Your task to perform on an android device: open app "Yahoo Mail" (install if not already installed) and go to login screen Image 0: 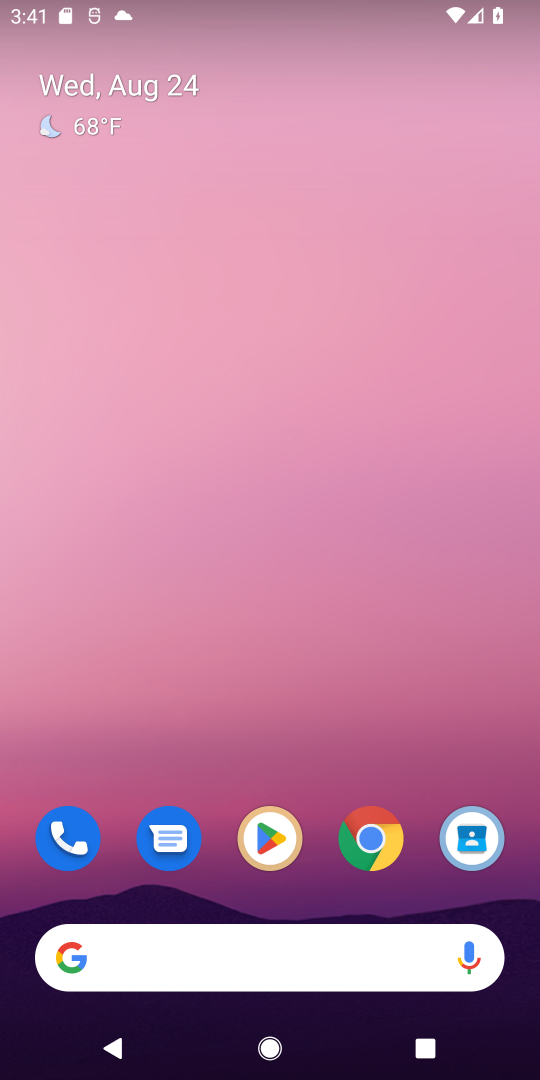
Step 0: click (262, 845)
Your task to perform on an android device: open app "Yahoo Mail" (install if not already installed) and go to login screen Image 1: 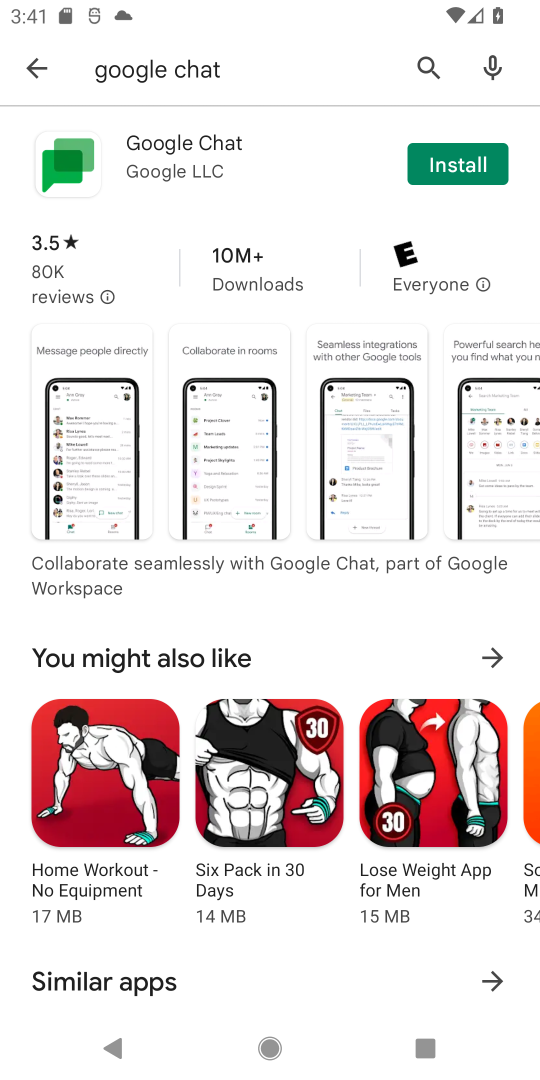
Step 1: click (73, 68)
Your task to perform on an android device: open app "Yahoo Mail" (install if not already installed) and go to login screen Image 2: 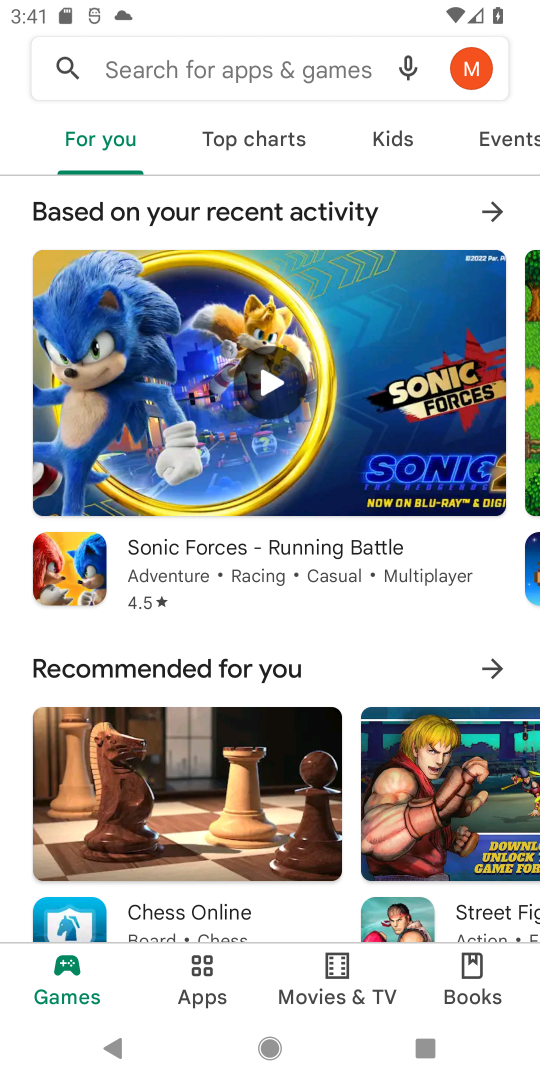
Step 2: click (53, 67)
Your task to perform on an android device: open app "Yahoo Mail" (install if not already installed) and go to login screen Image 3: 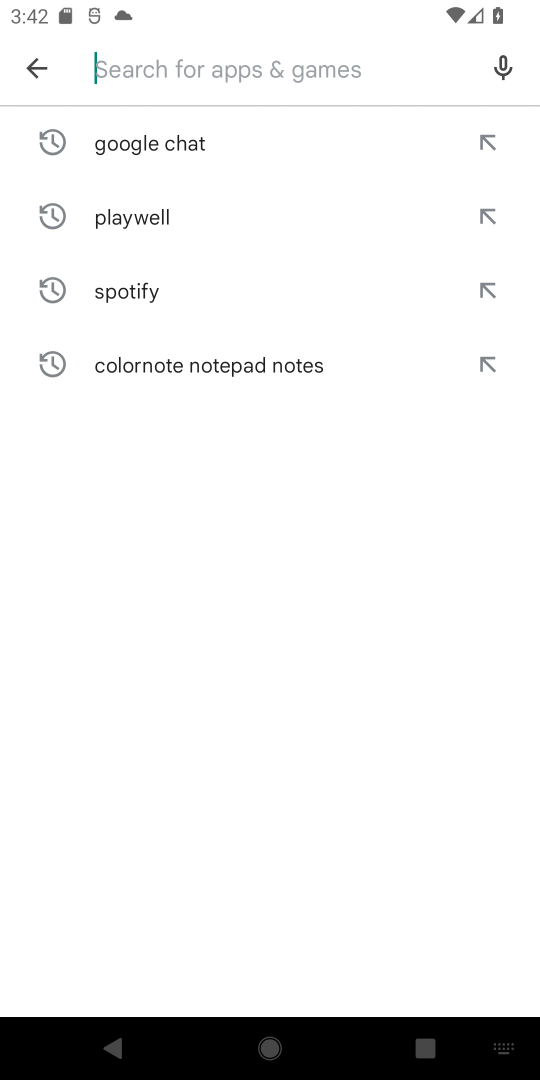
Step 3: type "Yahoo Mail"
Your task to perform on an android device: open app "Yahoo Mail" (install if not already installed) and go to login screen Image 4: 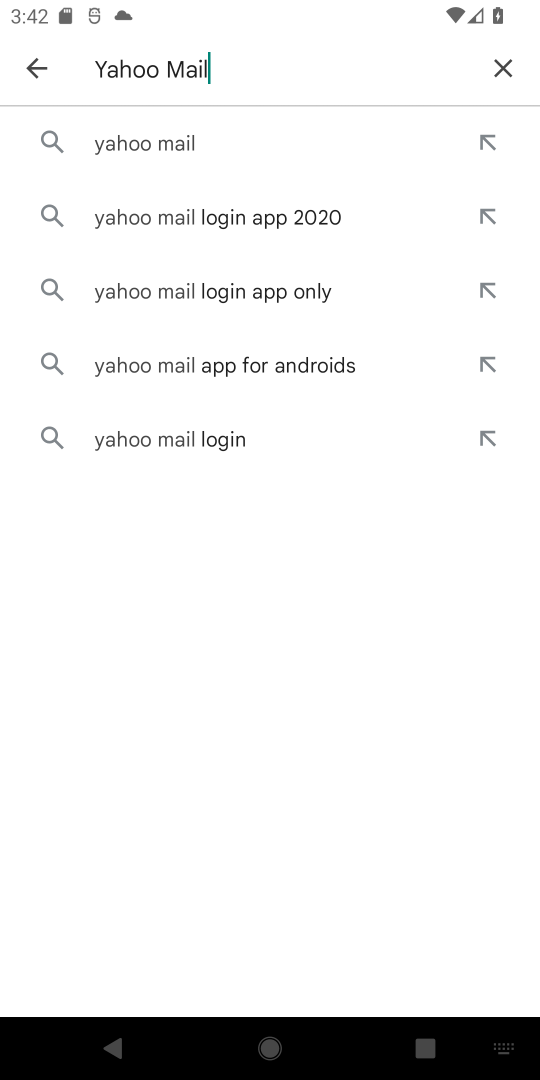
Step 4: click (189, 122)
Your task to perform on an android device: open app "Yahoo Mail" (install if not already installed) and go to login screen Image 5: 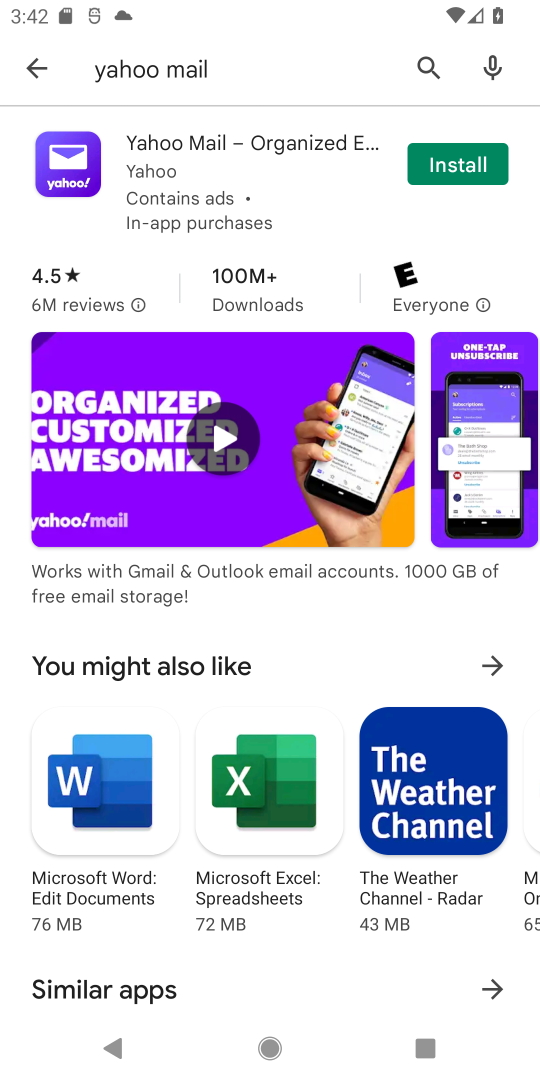
Step 5: click (470, 159)
Your task to perform on an android device: open app "Yahoo Mail" (install if not already installed) and go to login screen Image 6: 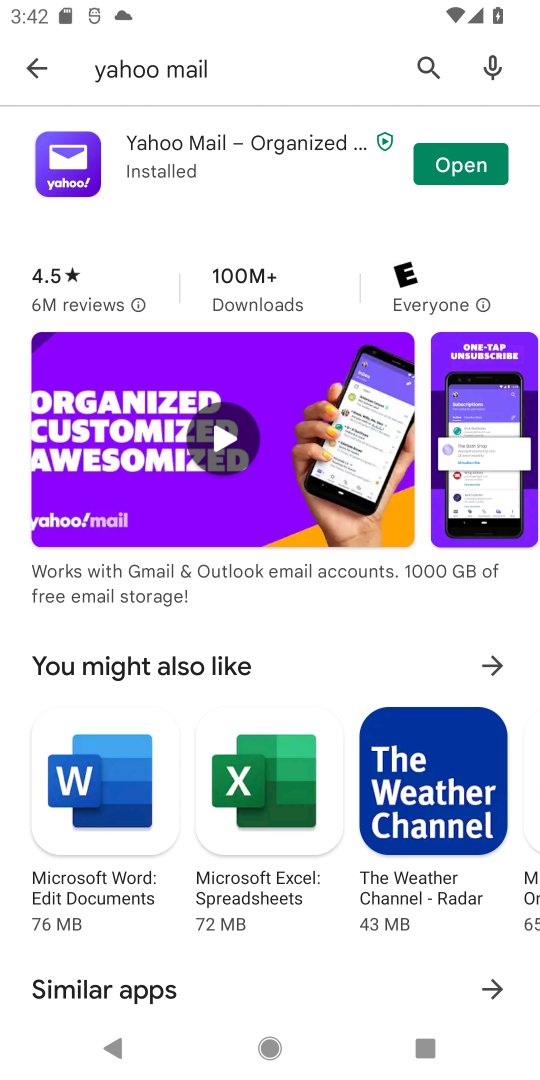
Step 6: click (470, 159)
Your task to perform on an android device: open app "Yahoo Mail" (install if not already installed) and go to login screen Image 7: 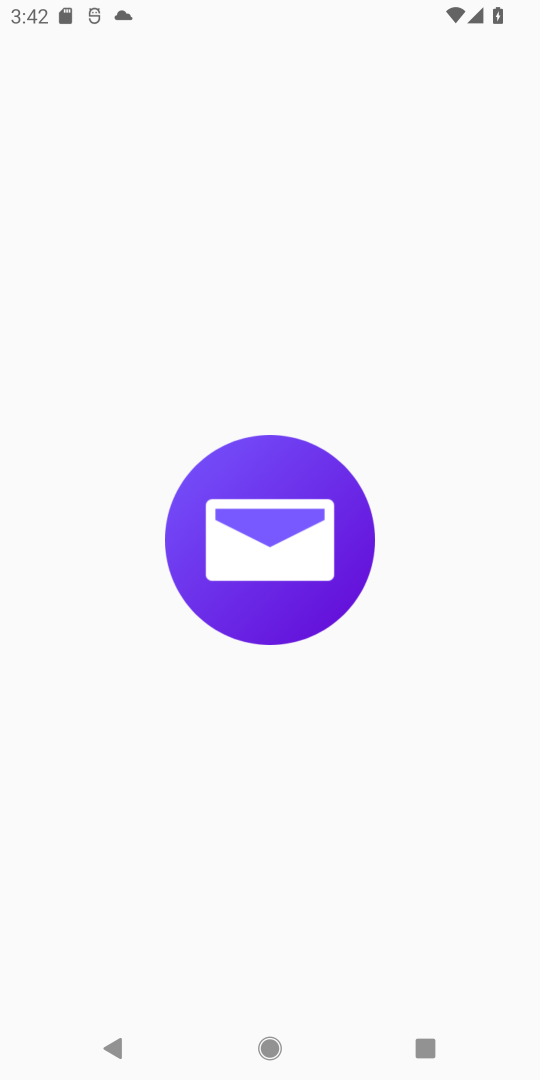
Step 7: click (470, 159)
Your task to perform on an android device: open app "Yahoo Mail" (install if not already installed) and go to login screen Image 8: 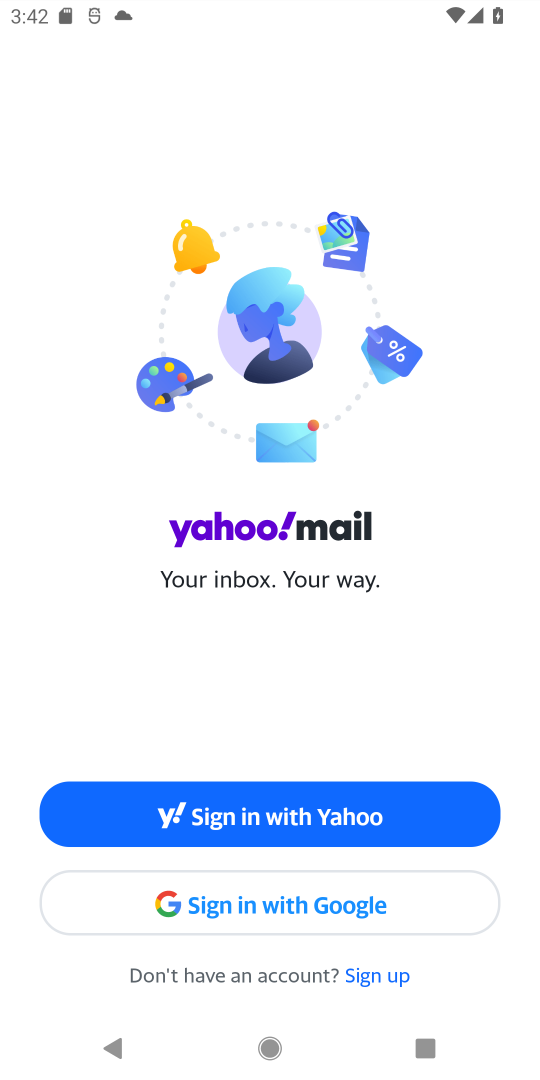
Step 8: click (379, 820)
Your task to perform on an android device: open app "Yahoo Mail" (install if not already installed) and go to login screen Image 9: 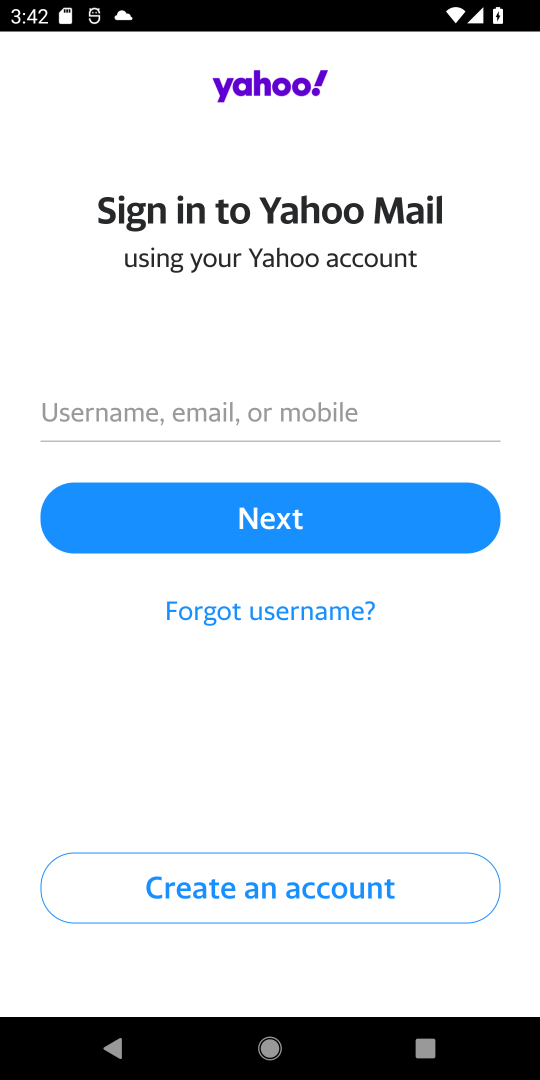
Step 9: task complete